Your task to perform on an android device: Open calendar and show me the third week of next month Image 0: 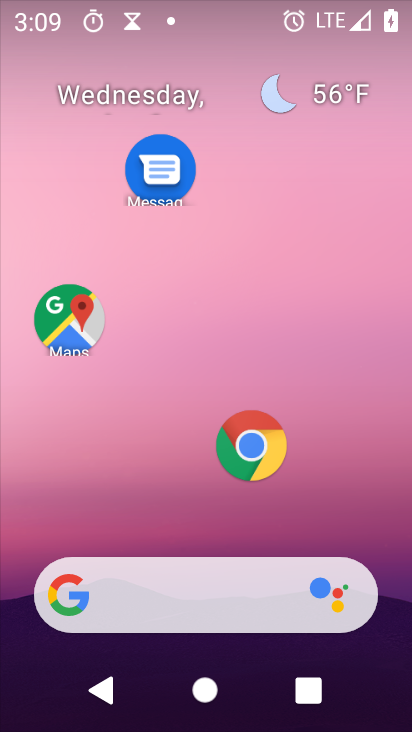
Step 0: press home button
Your task to perform on an android device: Open calendar and show me the third week of next month Image 1: 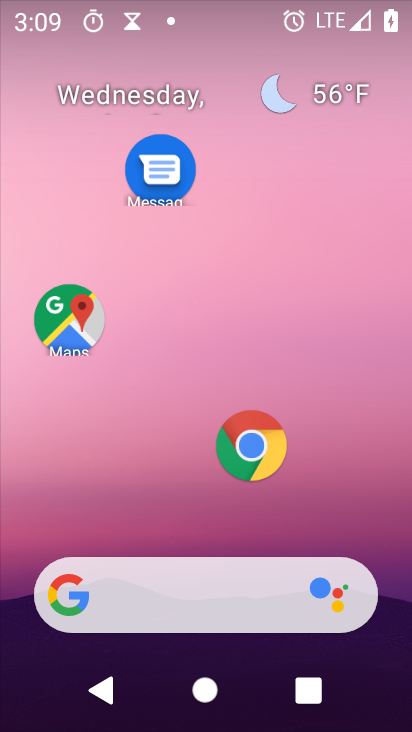
Step 1: drag from (68, 485) to (221, 138)
Your task to perform on an android device: Open calendar and show me the third week of next month Image 2: 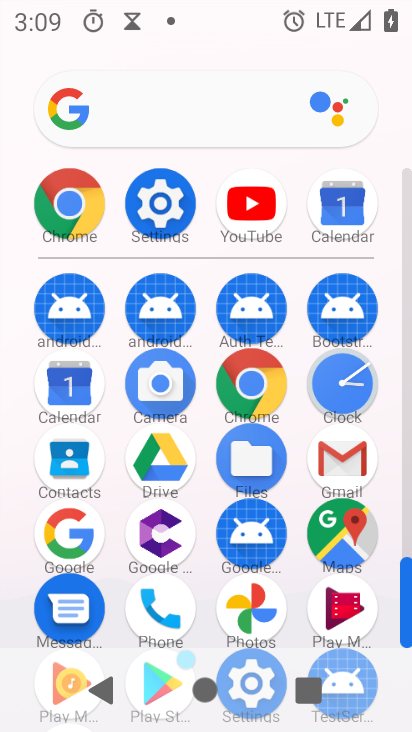
Step 2: click (74, 389)
Your task to perform on an android device: Open calendar and show me the third week of next month Image 3: 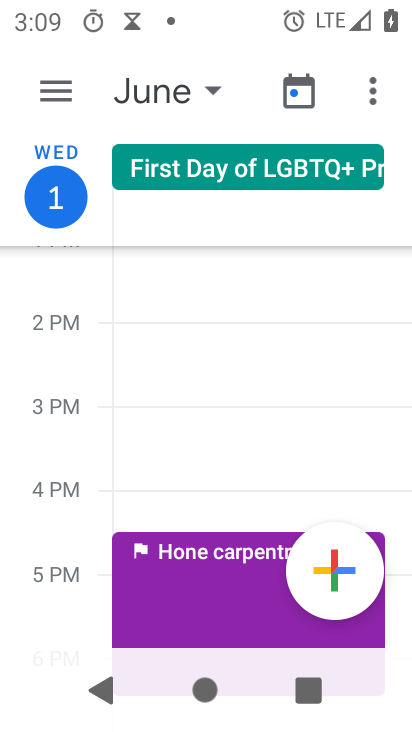
Step 3: click (167, 92)
Your task to perform on an android device: Open calendar and show me the third week of next month Image 4: 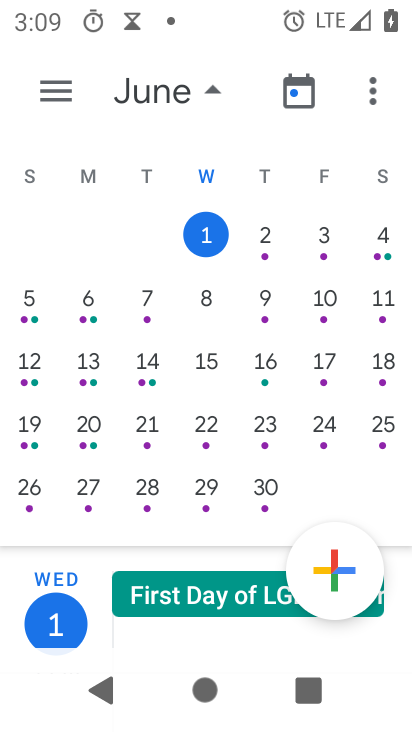
Step 4: drag from (359, 368) to (15, 322)
Your task to perform on an android device: Open calendar and show me the third week of next month Image 5: 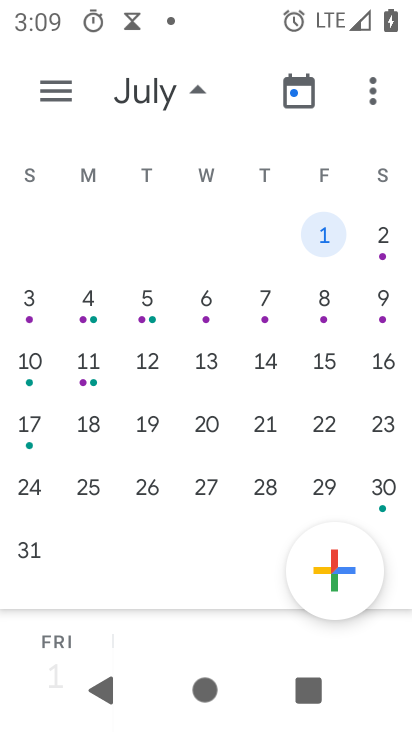
Step 5: click (269, 297)
Your task to perform on an android device: Open calendar and show me the third week of next month Image 6: 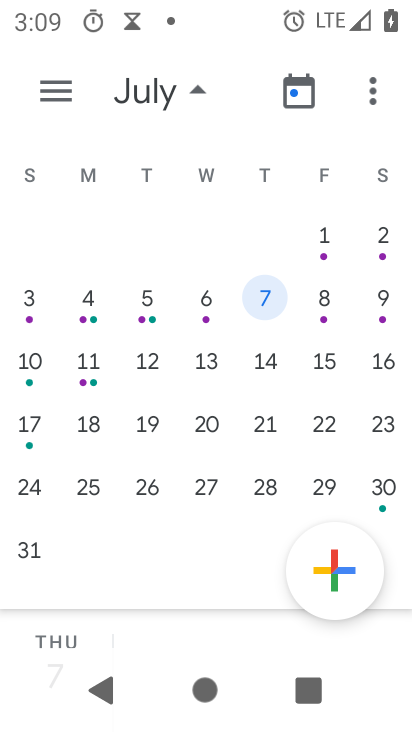
Step 6: click (253, 356)
Your task to perform on an android device: Open calendar and show me the third week of next month Image 7: 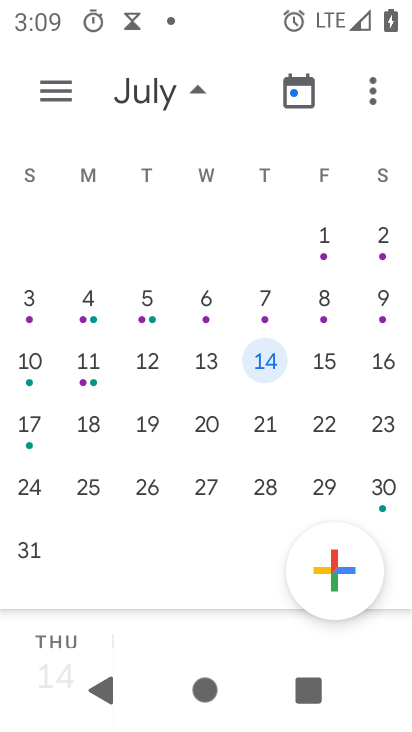
Step 7: task complete